Your task to perform on an android device: Open Google Chrome and open the bookmarks view Image 0: 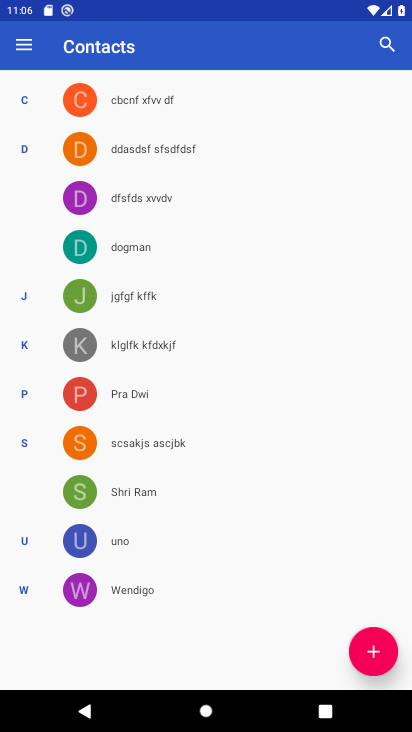
Step 0: press home button
Your task to perform on an android device: Open Google Chrome and open the bookmarks view Image 1: 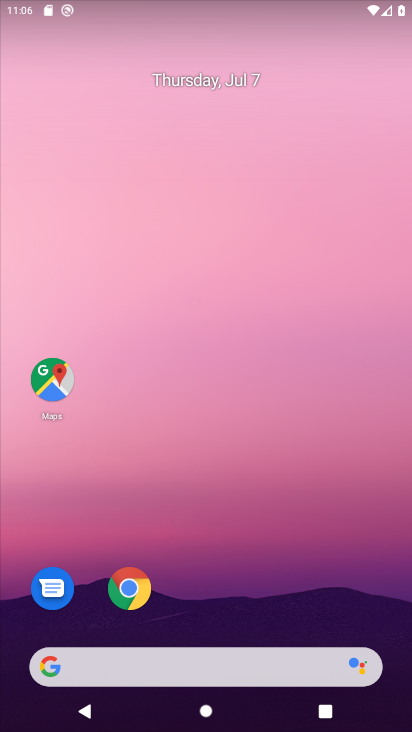
Step 1: click (125, 593)
Your task to perform on an android device: Open Google Chrome and open the bookmarks view Image 2: 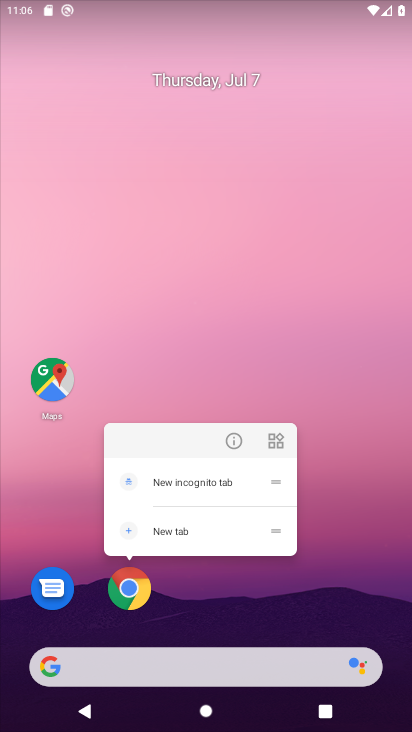
Step 2: click (133, 587)
Your task to perform on an android device: Open Google Chrome and open the bookmarks view Image 3: 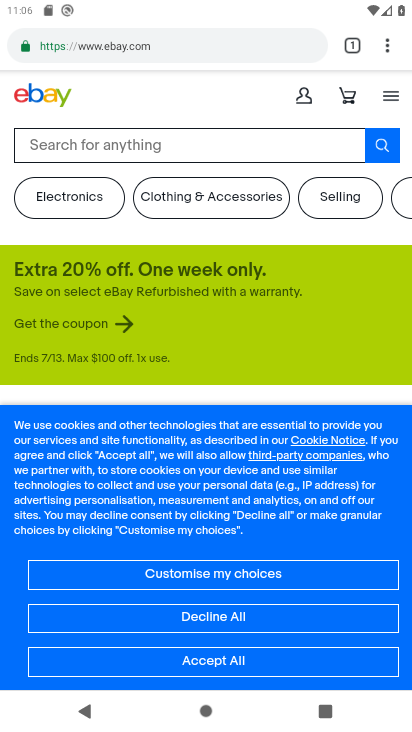
Step 3: task complete